Your task to perform on an android device: open the mobile data screen to see how much data has been used Image 0: 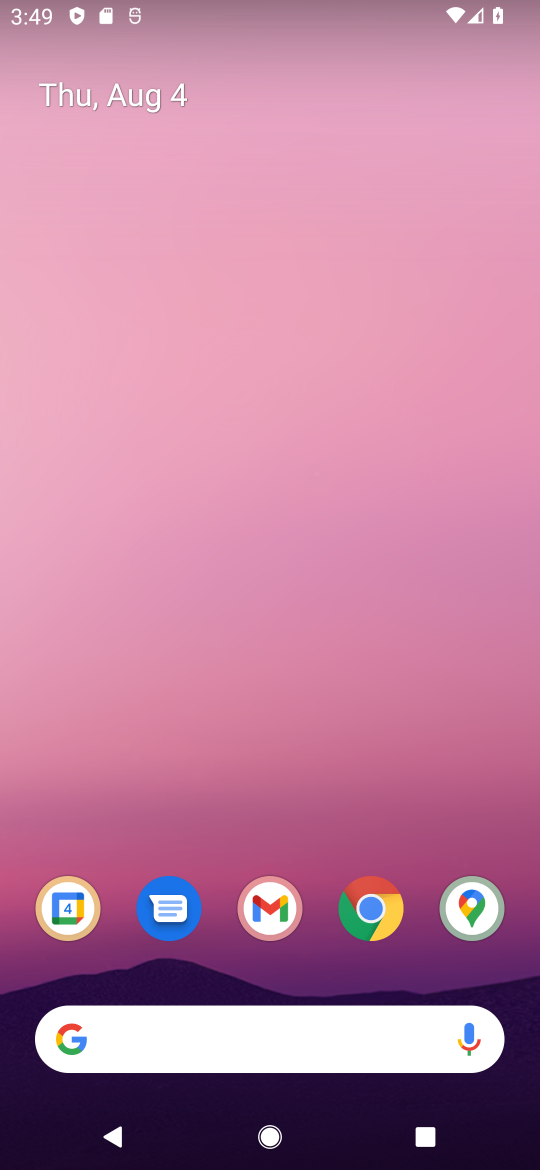
Step 0: drag from (154, 757) to (268, 95)
Your task to perform on an android device: open the mobile data screen to see how much data has been used Image 1: 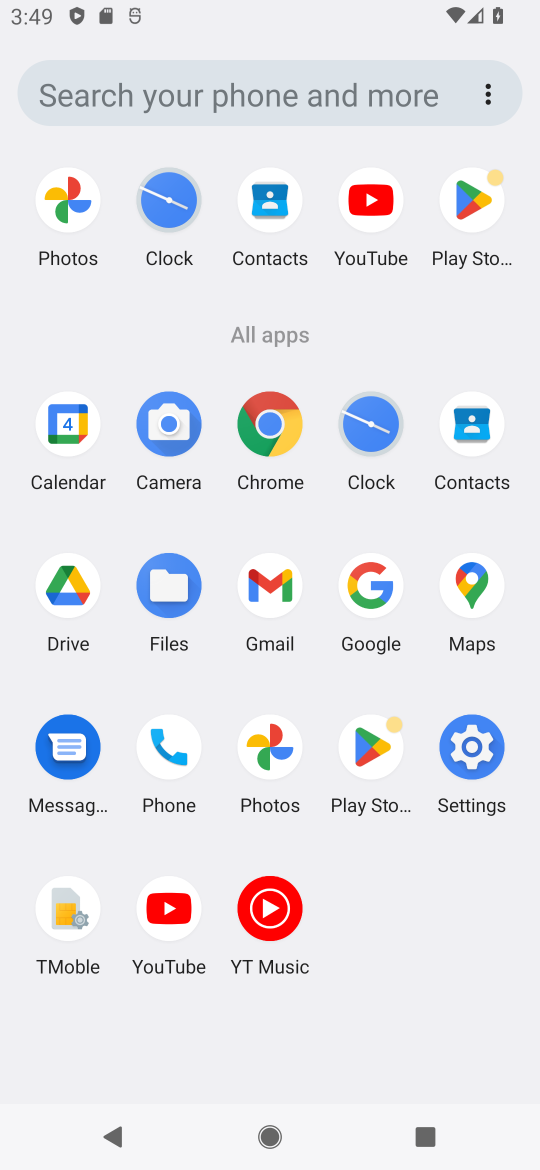
Step 1: click (463, 768)
Your task to perform on an android device: open the mobile data screen to see how much data has been used Image 2: 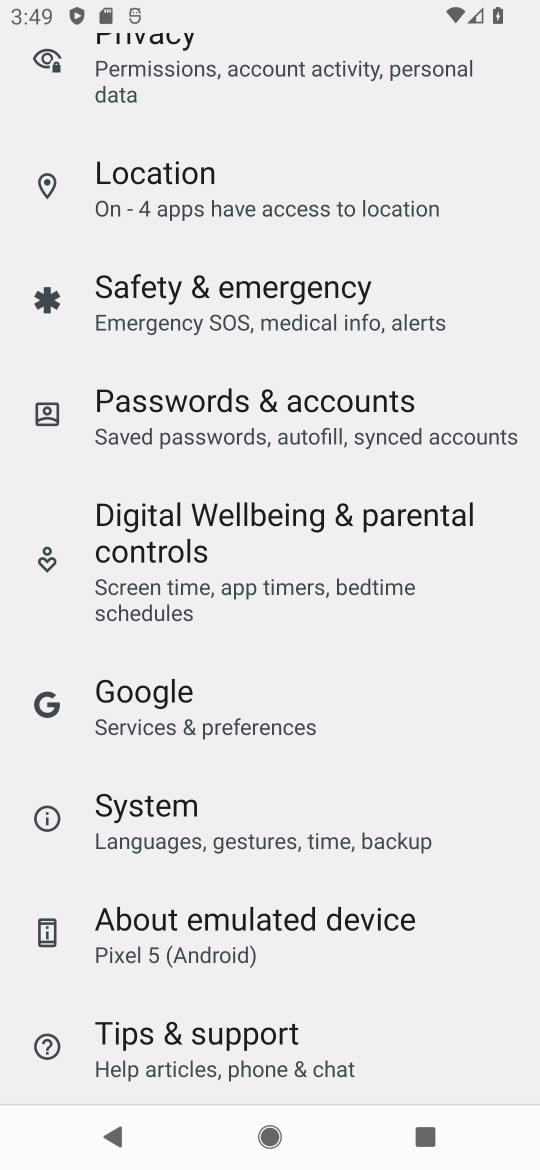
Step 2: drag from (97, 157) to (191, 646)
Your task to perform on an android device: open the mobile data screen to see how much data has been used Image 3: 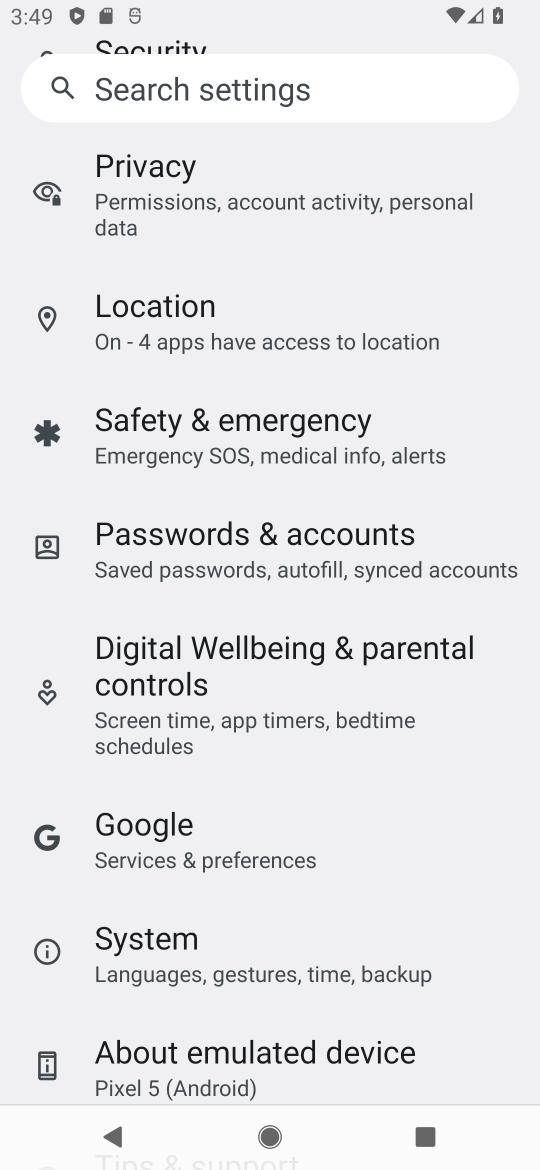
Step 3: drag from (282, 207) to (396, 727)
Your task to perform on an android device: open the mobile data screen to see how much data has been used Image 4: 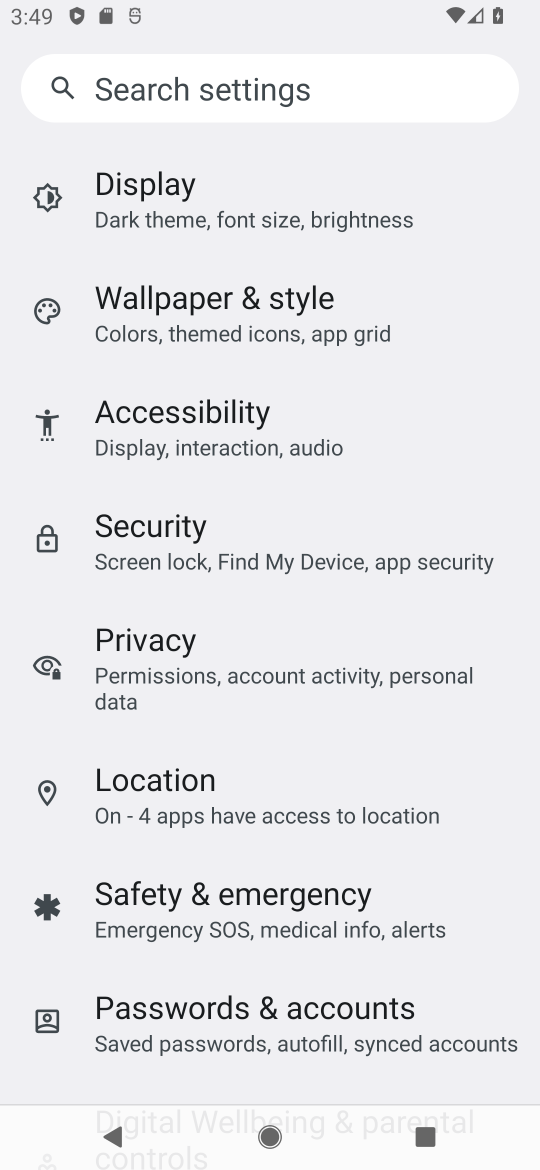
Step 4: drag from (333, 268) to (422, 766)
Your task to perform on an android device: open the mobile data screen to see how much data has been used Image 5: 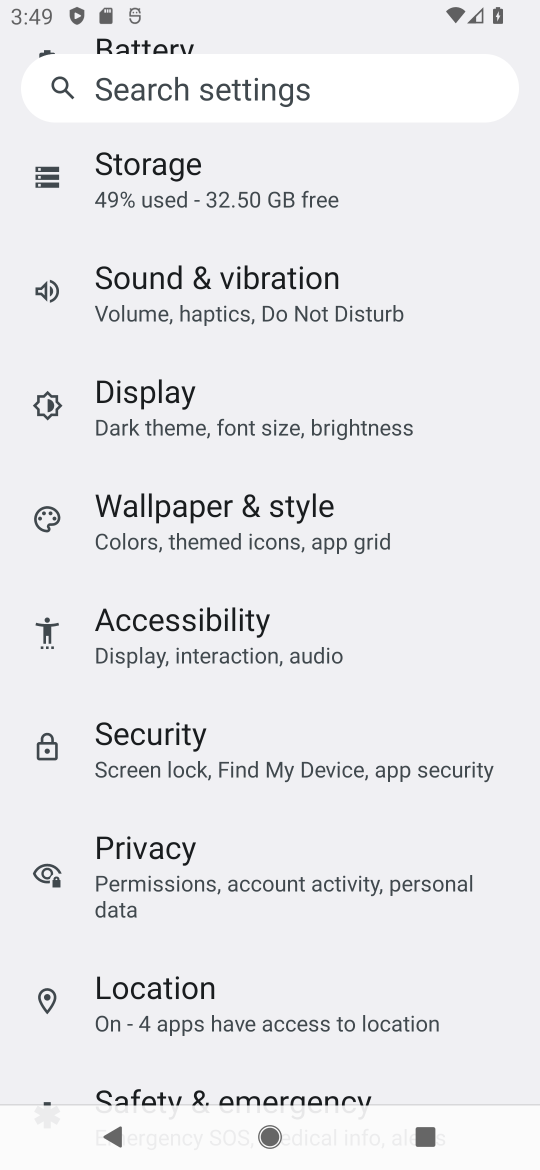
Step 5: drag from (426, 283) to (471, 750)
Your task to perform on an android device: open the mobile data screen to see how much data has been used Image 6: 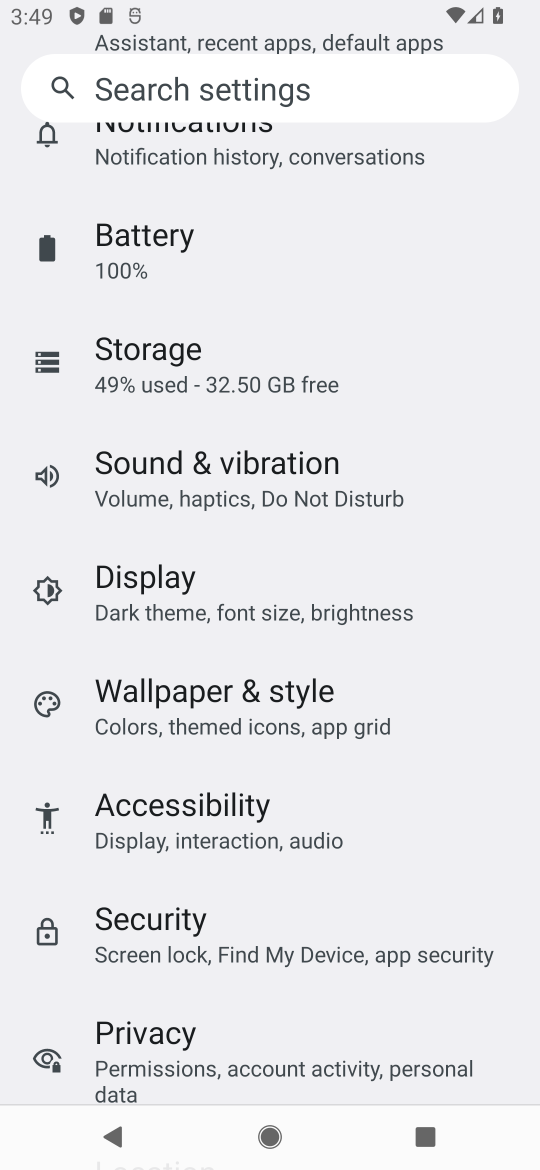
Step 6: drag from (387, 286) to (422, 794)
Your task to perform on an android device: open the mobile data screen to see how much data has been used Image 7: 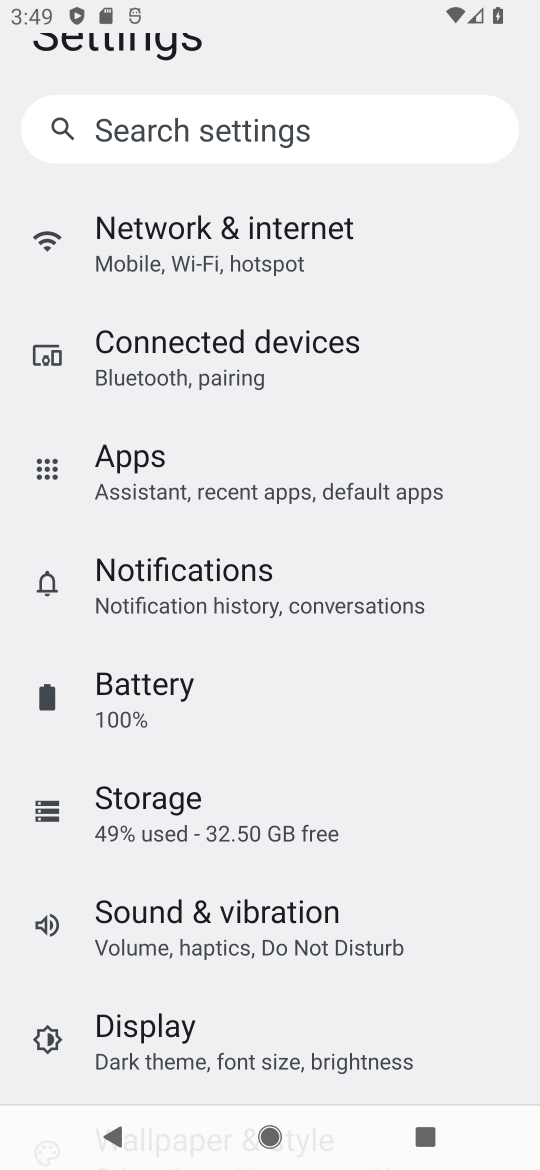
Step 7: click (338, 252)
Your task to perform on an android device: open the mobile data screen to see how much data has been used Image 8: 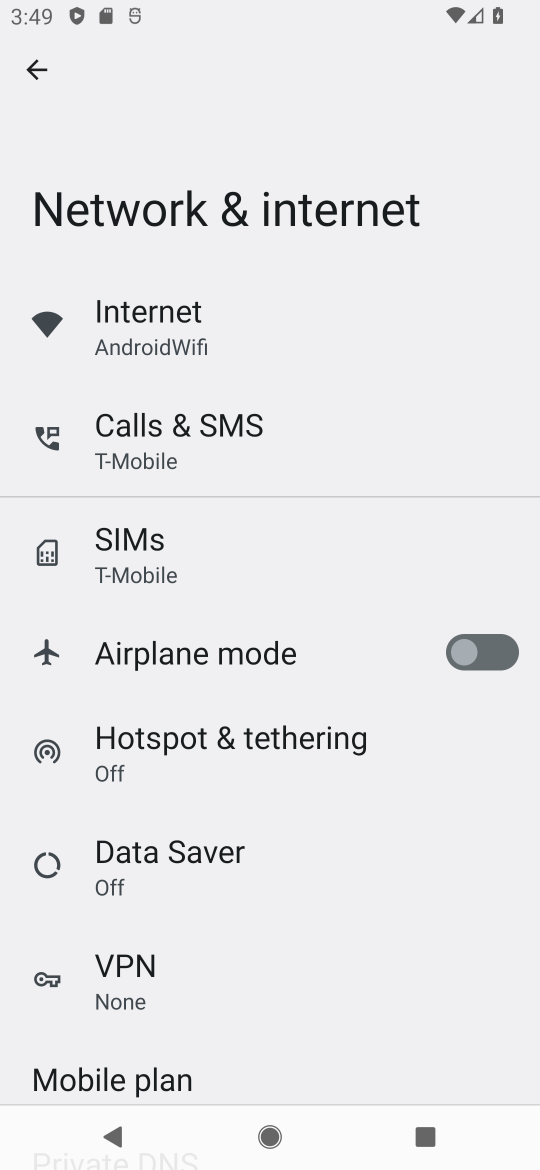
Step 8: click (203, 311)
Your task to perform on an android device: open the mobile data screen to see how much data has been used Image 9: 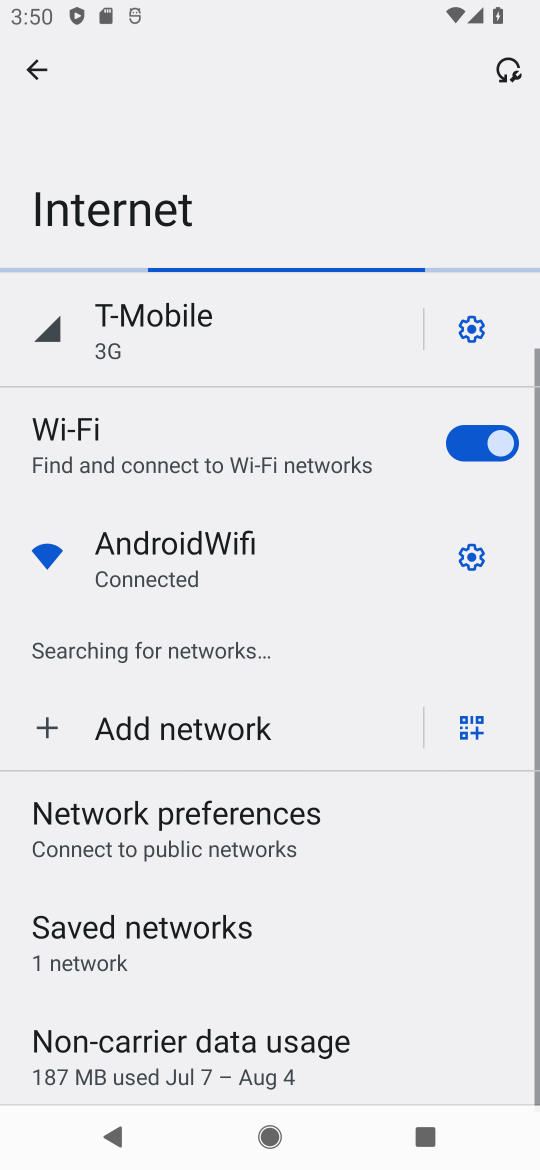
Step 9: click (289, 1036)
Your task to perform on an android device: open the mobile data screen to see how much data has been used Image 10: 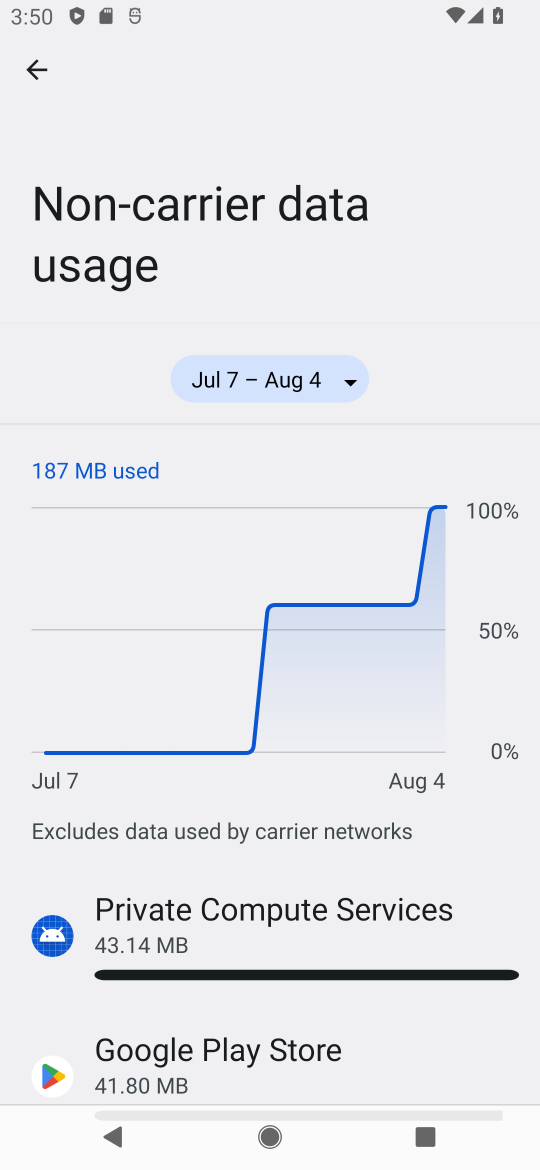
Step 10: task complete